Your task to perform on an android device: delete the emails in spam in the gmail app Image 0: 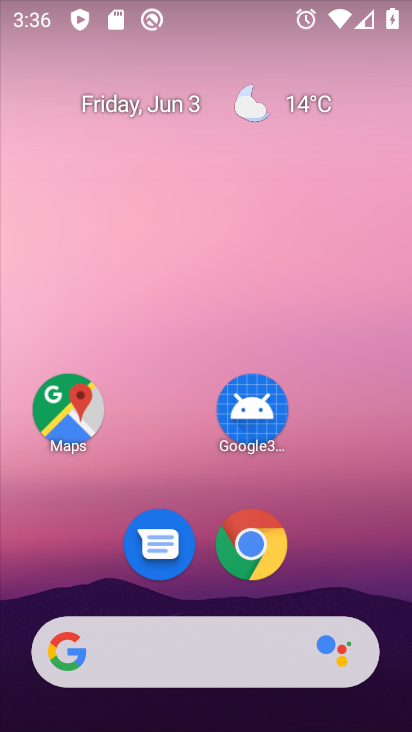
Step 0: drag from (129, 586) to (222, 140)
Your task to perform on an android device: delete the emails in spam in the gmail app Image 1: 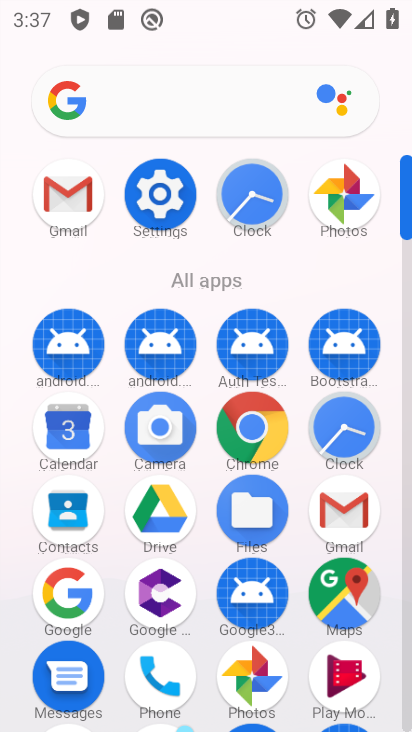
Step 1: click (320, 524)
Your task to perform on an android device: delete the emails in spam in the gmail app Image 2: 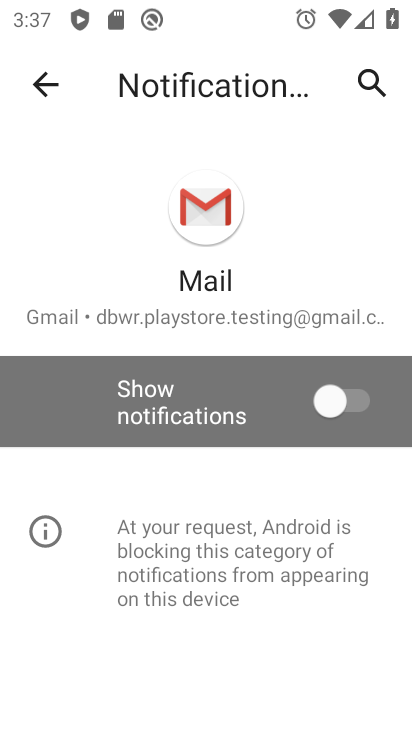
Step 2: click (53, 102)
Your task to perform on an android device: delete the emails in spam in the gmail app Image 3: 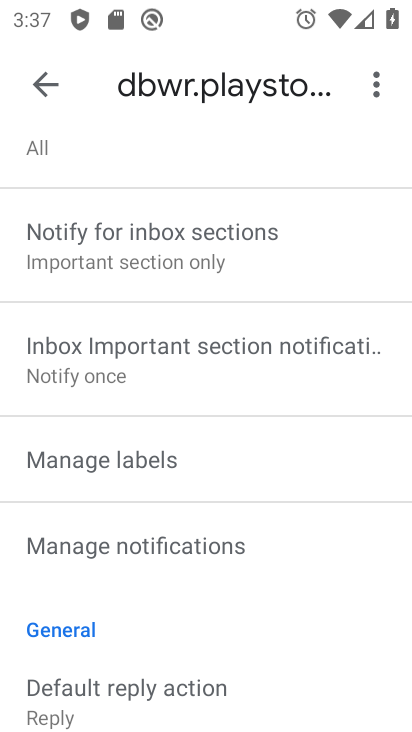
Step 3: click (52, 99)
Your task to perform on an android device: delete the emails in spam in the gmail app Image 4: 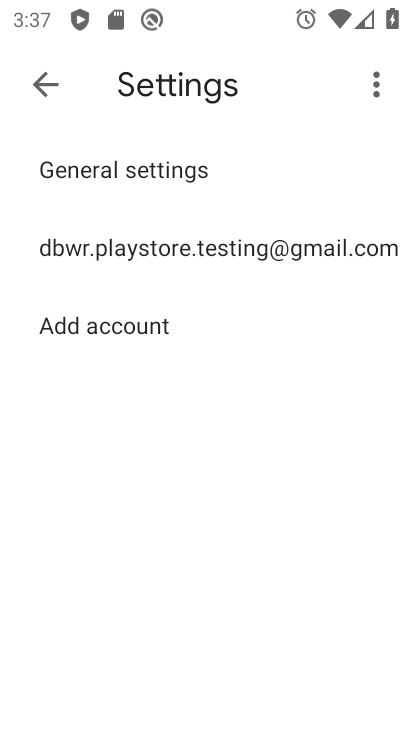
Step 4: click (34, 83)
Your task to perform on an android device: delete the emails in spam in the gmail app Image 5: 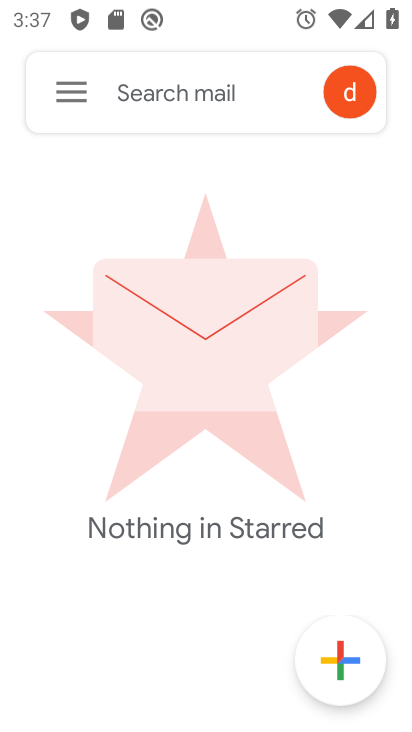
Step 5: click (61, 75)
Your task to perform on an android device: delete the emails in spam in the gmail app Image 6: 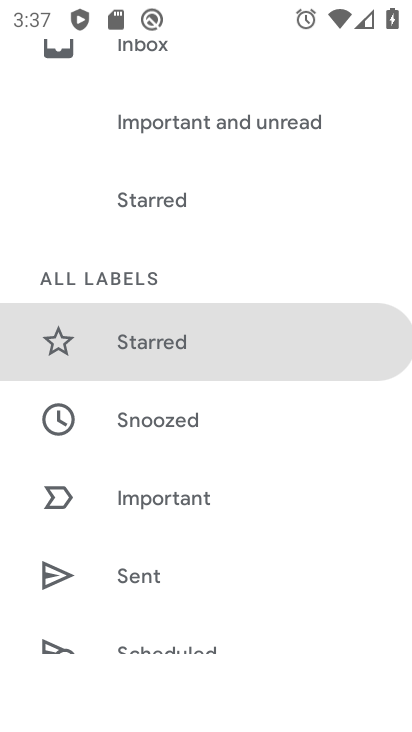
Step 6: drag from (144, 602) to (287, 199)
Your task to perform on an android device: delete the emails in spam in the gmail app Image 7: 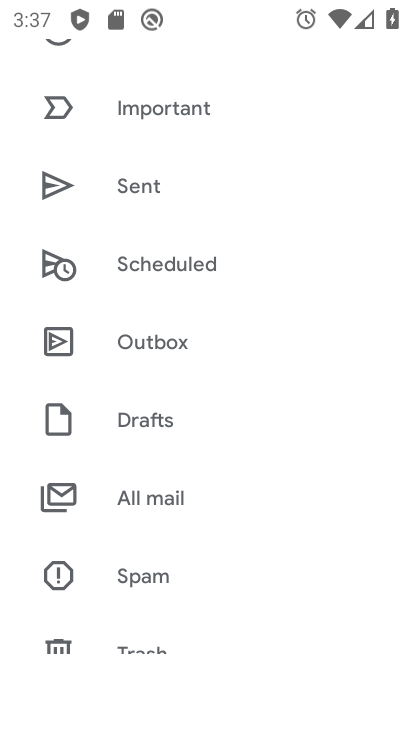
Step 7: click (199, 585)
Your task to perform on an android device: delete the emails in spam in the gmail app Image 8: 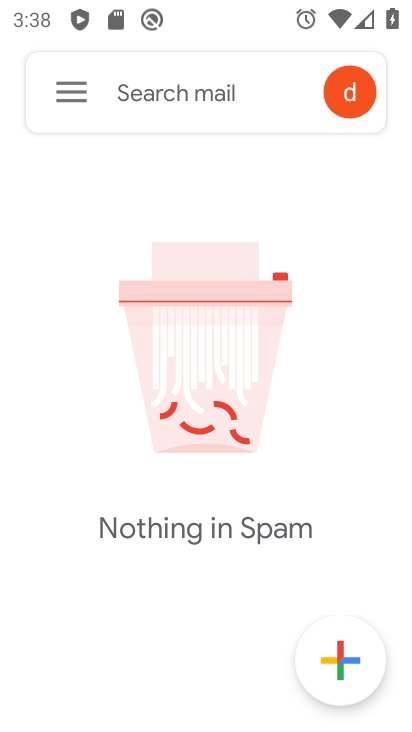
Step 8: task complete